Your task to perform on an android device: Install the Twitter app Image 0: 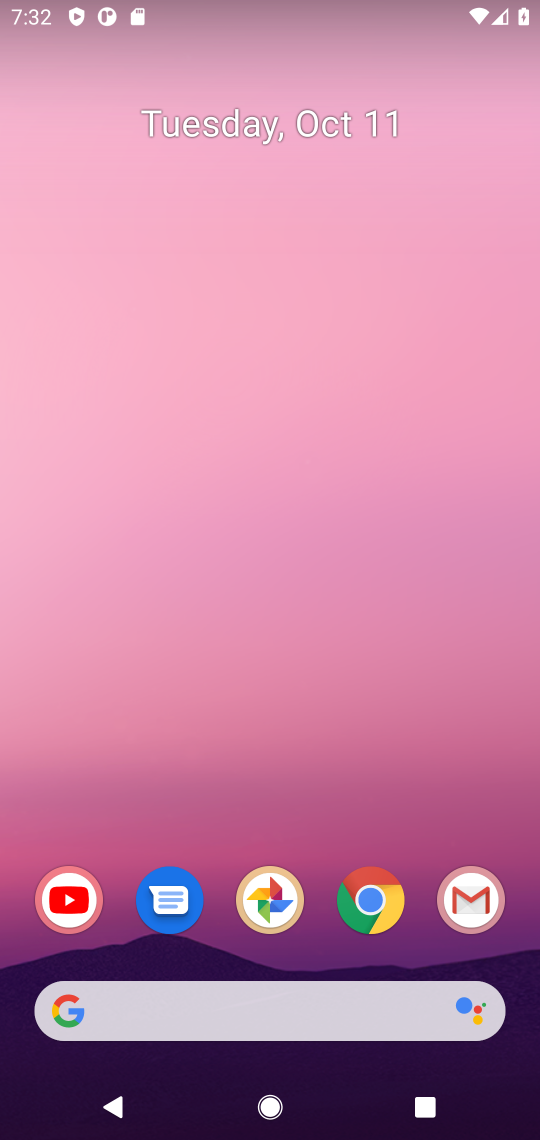
Step 0: drag from (343, 809) to (439, 42)
Your task to perform on an android device: Install the Twitter app Image 1: 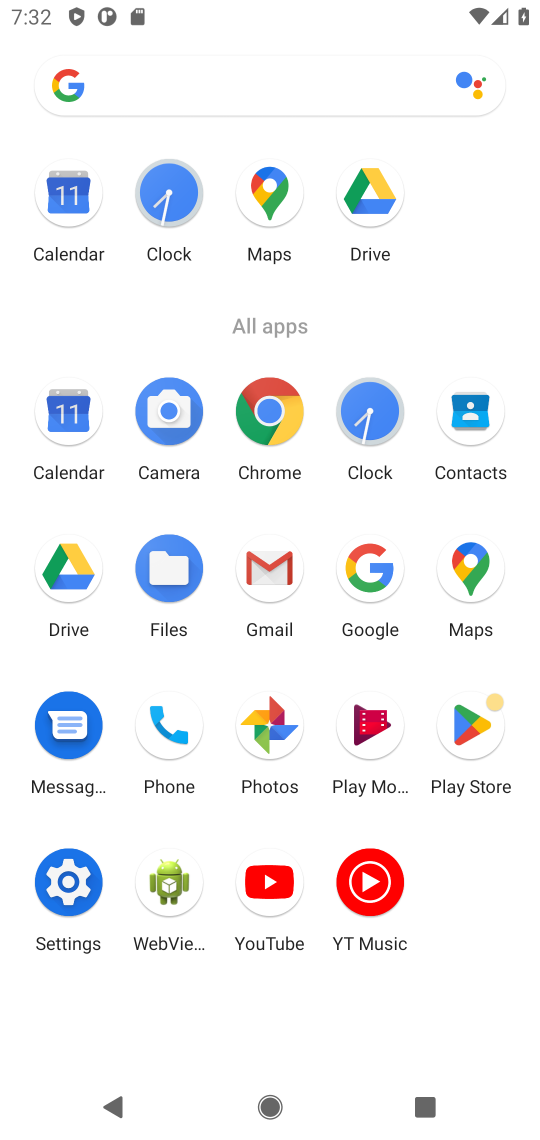
Step 1: click (476, 740)
Your task to perform on an android device: Install the Twitter app Image 2: 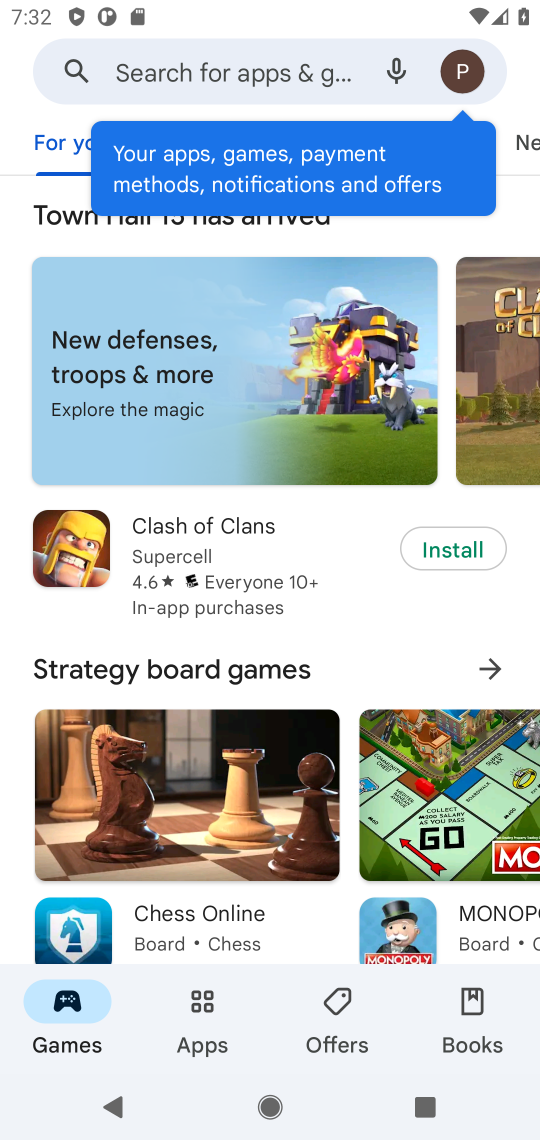
Step 2: click (262, 79)
Your task to perform on an android device: Install the Twitter app Image 3: 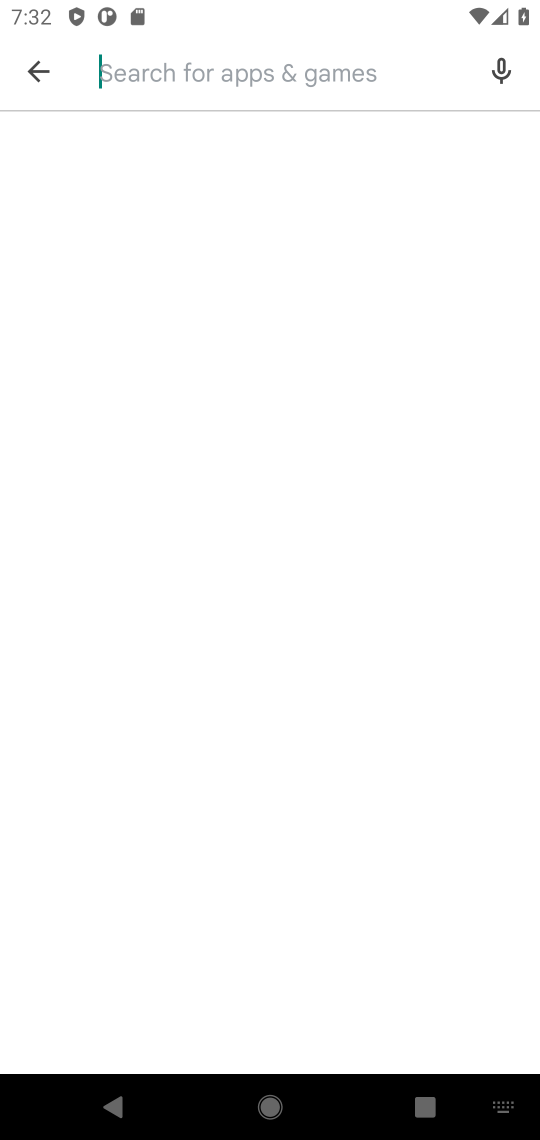
Step 3: type "twitter"
Your task to perform on an android device: Install the Twitter app Image 4: 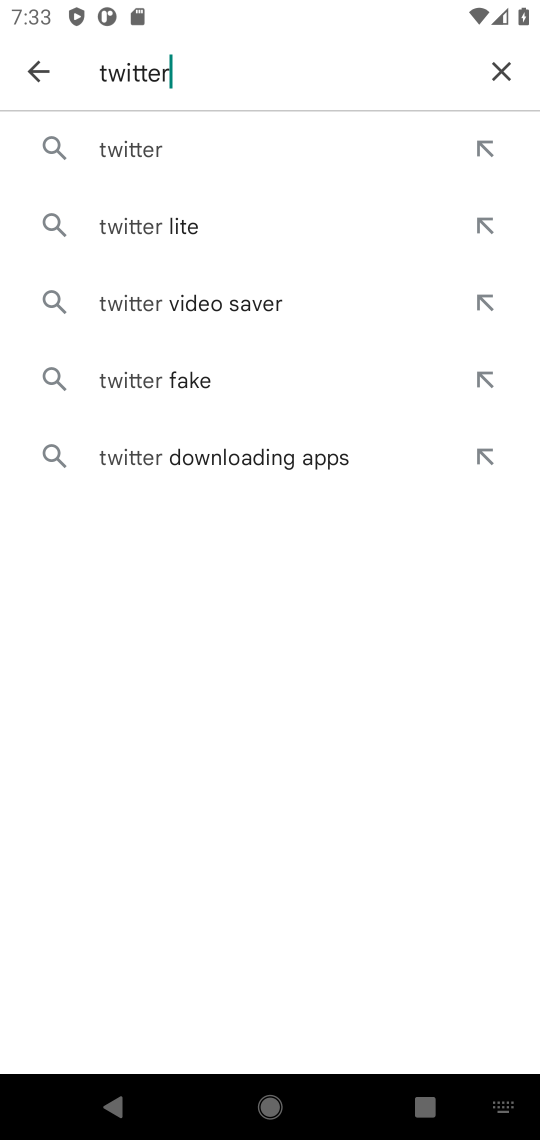
Step 4: click (226, 148)
Your task to perform on an android device: Install the Twitter app Image 5: 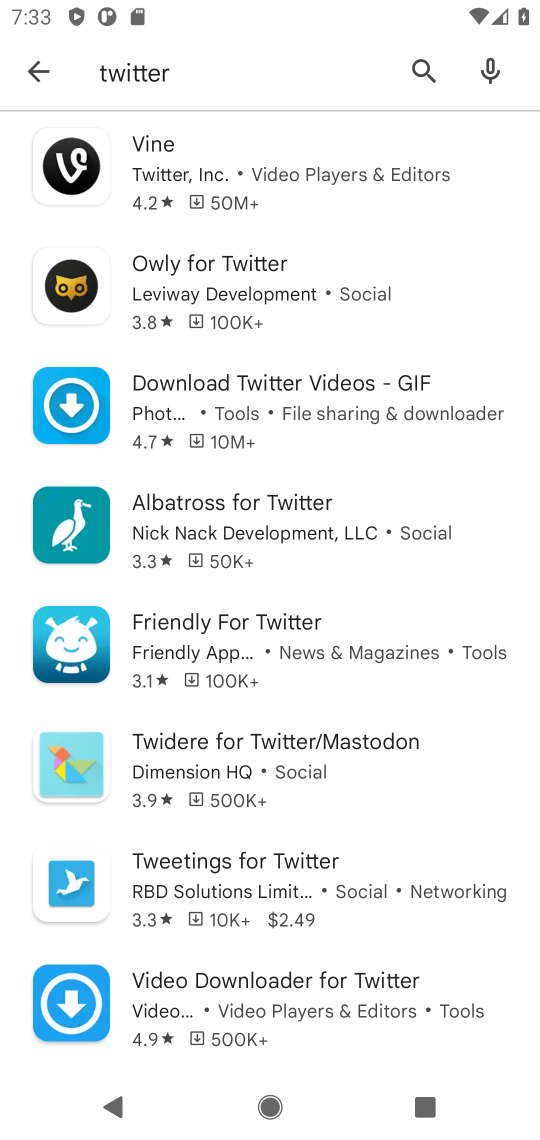
Step 5: task complete